Your task to perform on an android device: Clear the shopping cart on amazon.com. Add bose soundsport free to the cart on amazon.com, then select checkout. Image 0: 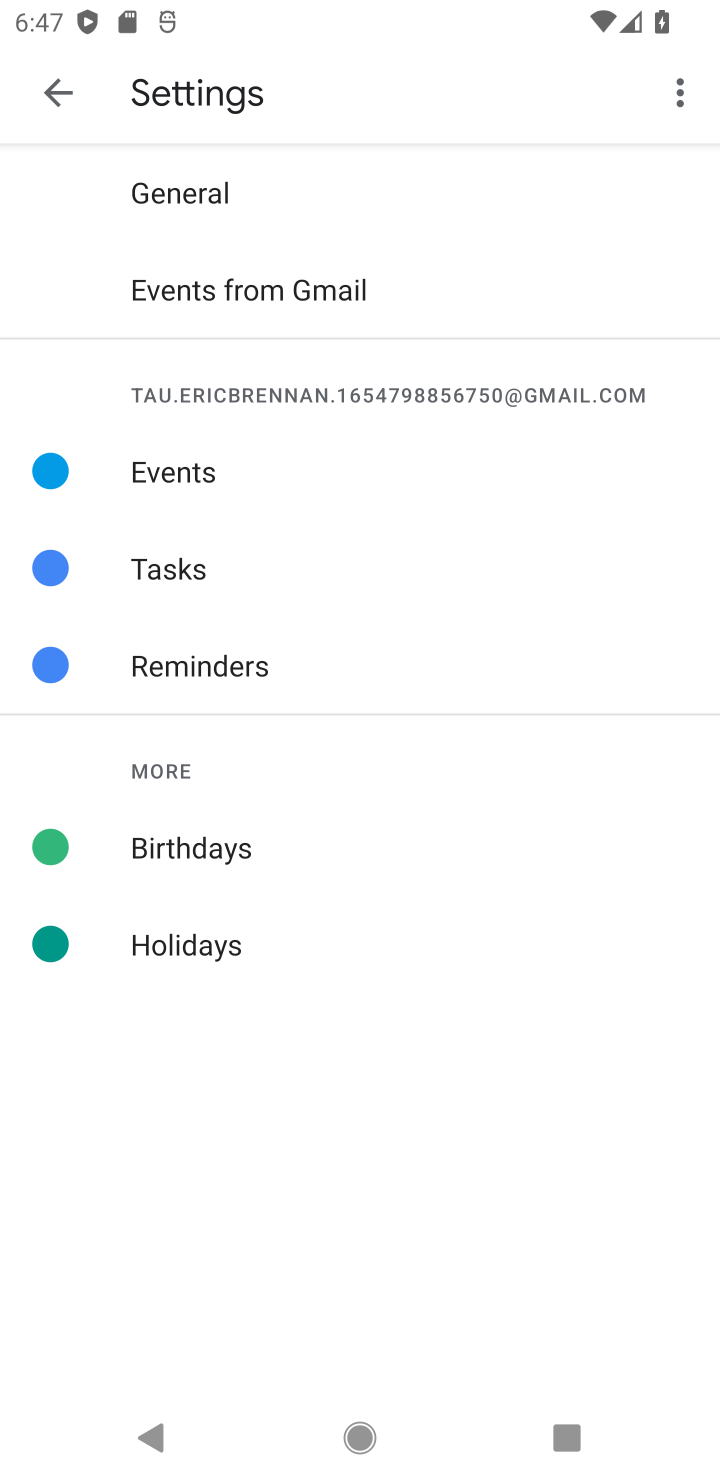
Step 0: press home button
Your task to perform on an android device: Clear the shopping cart on amazon.com. Add bose soundsport free to the cart on amazon.com, then select checkout. Image 1: 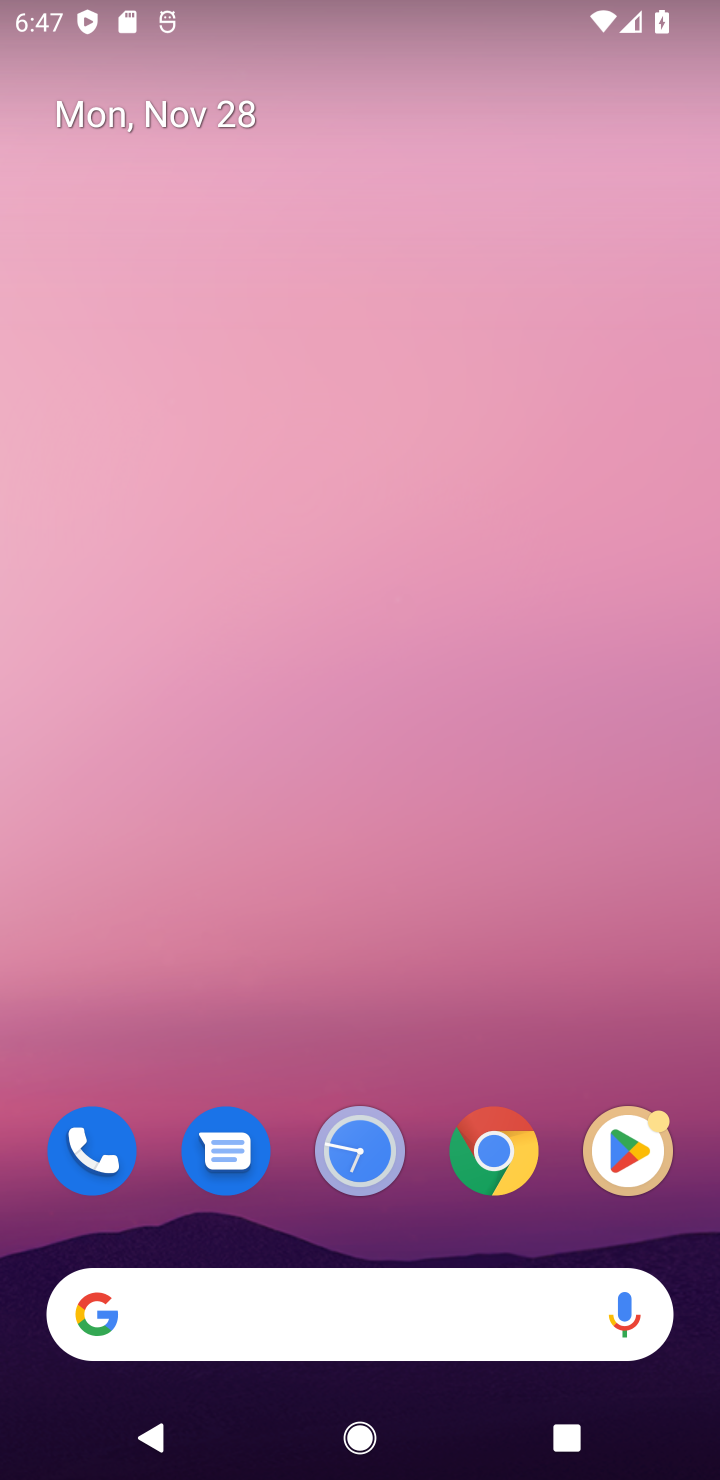
Step 1: click (329, 1295)
Your task to perform on an android device: Clear the shopping cart on amazon.com. Add bose soundsport free to the cart on amazon.com, then select checkout. Image 2: 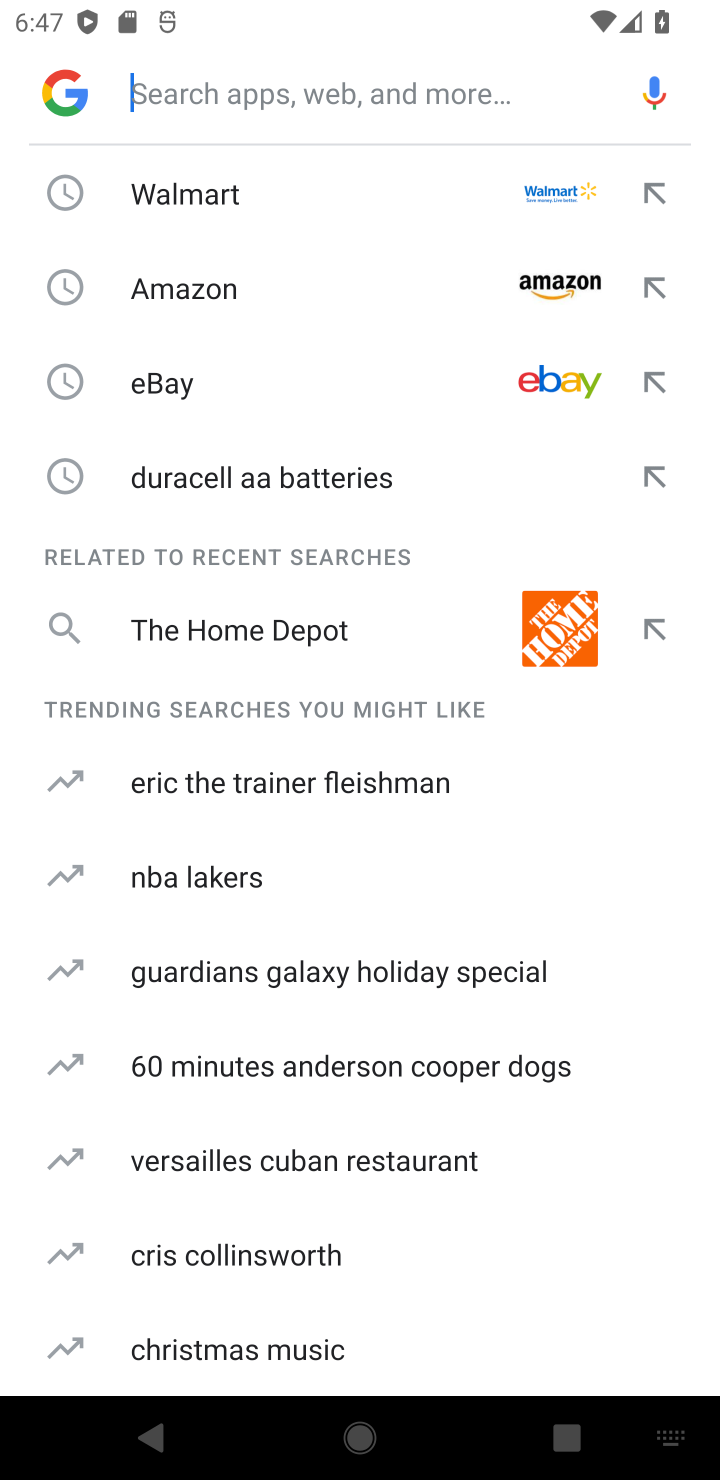
Step 2: type "amazon.com"
Your task to perform on an android device: Clear the shopping cart on amazon.com. Add bose soundsport free to the cart on amazon.com, then select checkout. Image 3: 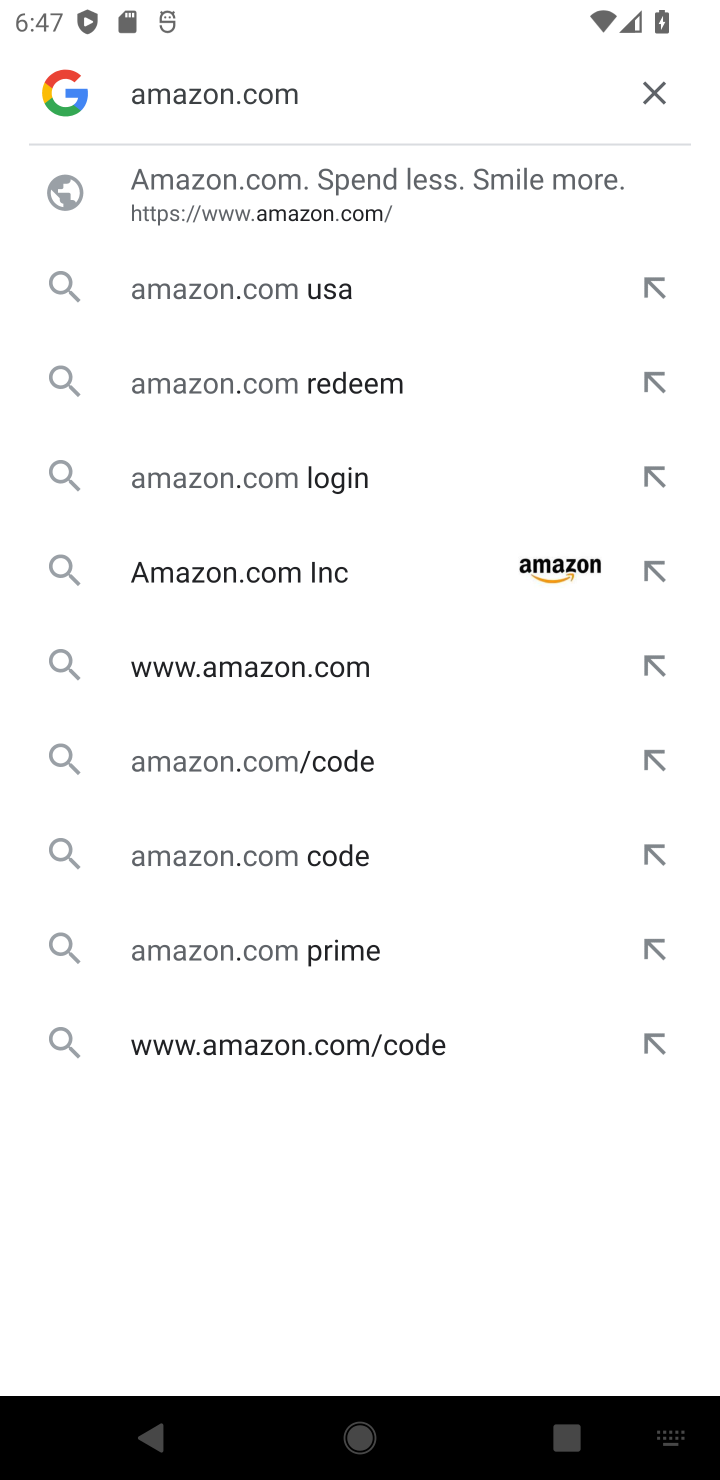
Step 3: click (301, 188)
Your task to perform on an android device: Clear the shopping cart on amazon.com. Add bose soundsport free to the cart on amazon.com, then select checkout. Image 4: 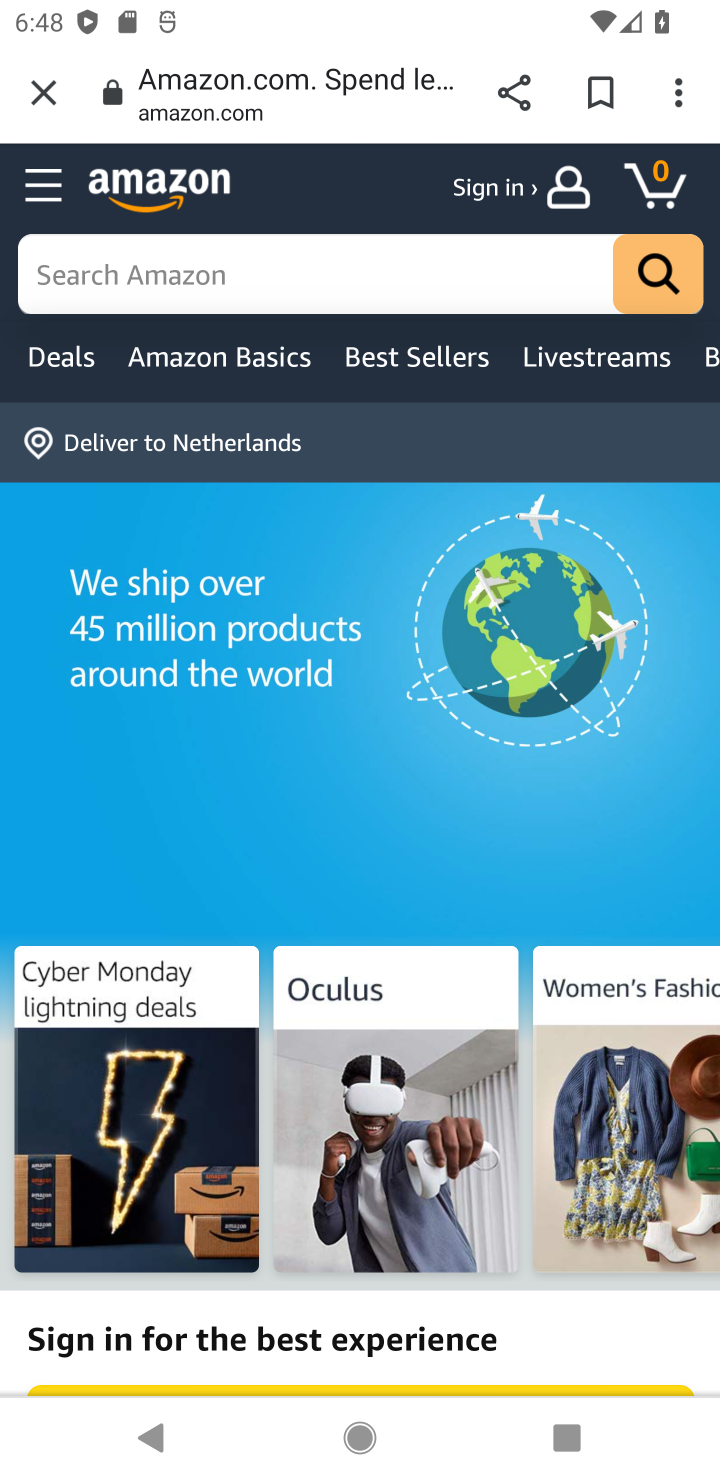
Step 4: click (280, 296)
Your task to perform on an android device: Clear the shopping cart on amazon.com. Add bose soundsport free to the cart on amazon.com, then select checkout. Image 5: 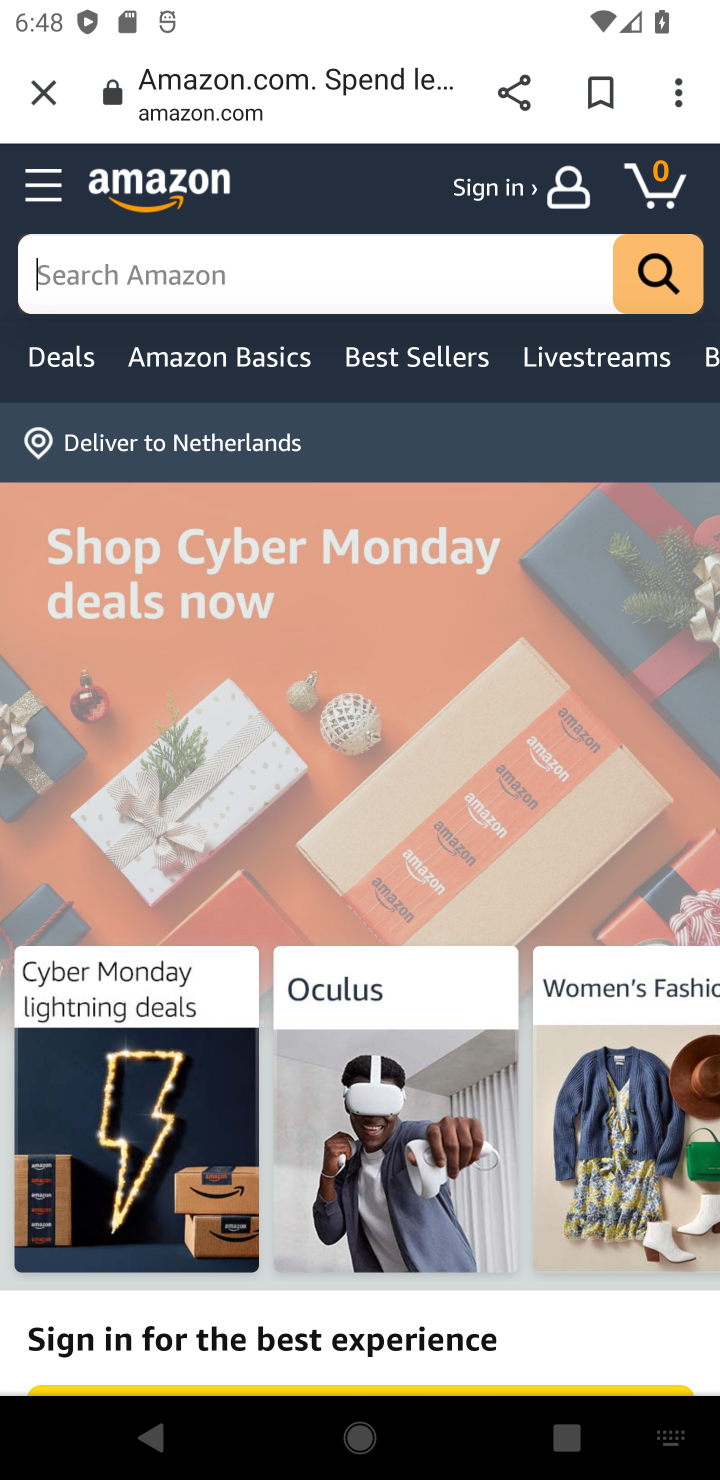
Step 5: type "bose soundsport"
Your task to perform on an android device: Clear the shopping cart on amazon.com. Add bose soundsport free to the cart on amazon.com, then select checkout. Image 6: 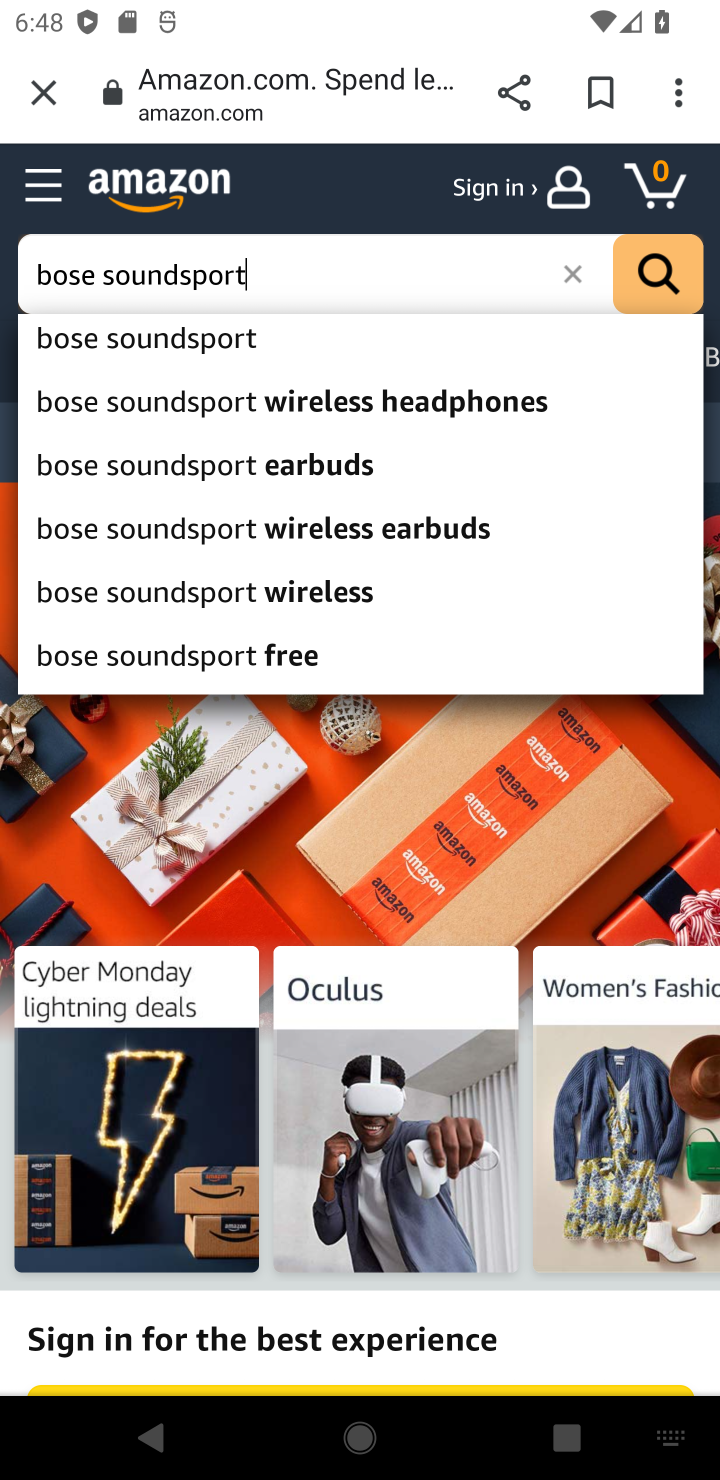
Step 6: click (51, 338)
Your task to perform on an android device: Clear the shopping cart on amazon.com. Add bose soundsport free to the cart on amazon.com, then select checkout. Image 7: 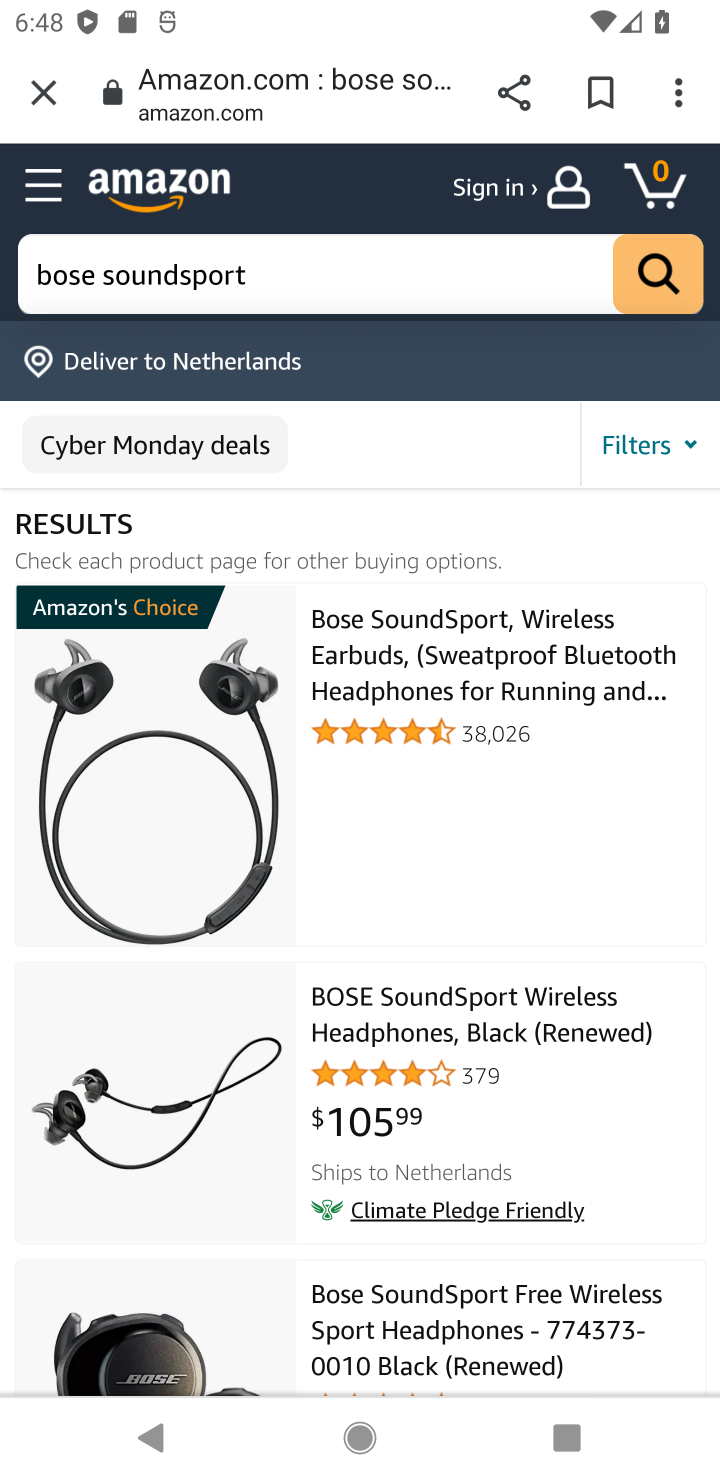
Step 7: click (354, 700)
Your task to perform on an android device: Clear the shopping cart on amazon.com. Add bose soundsport free to the cart on amazon.com, then select checkout. Image 8: 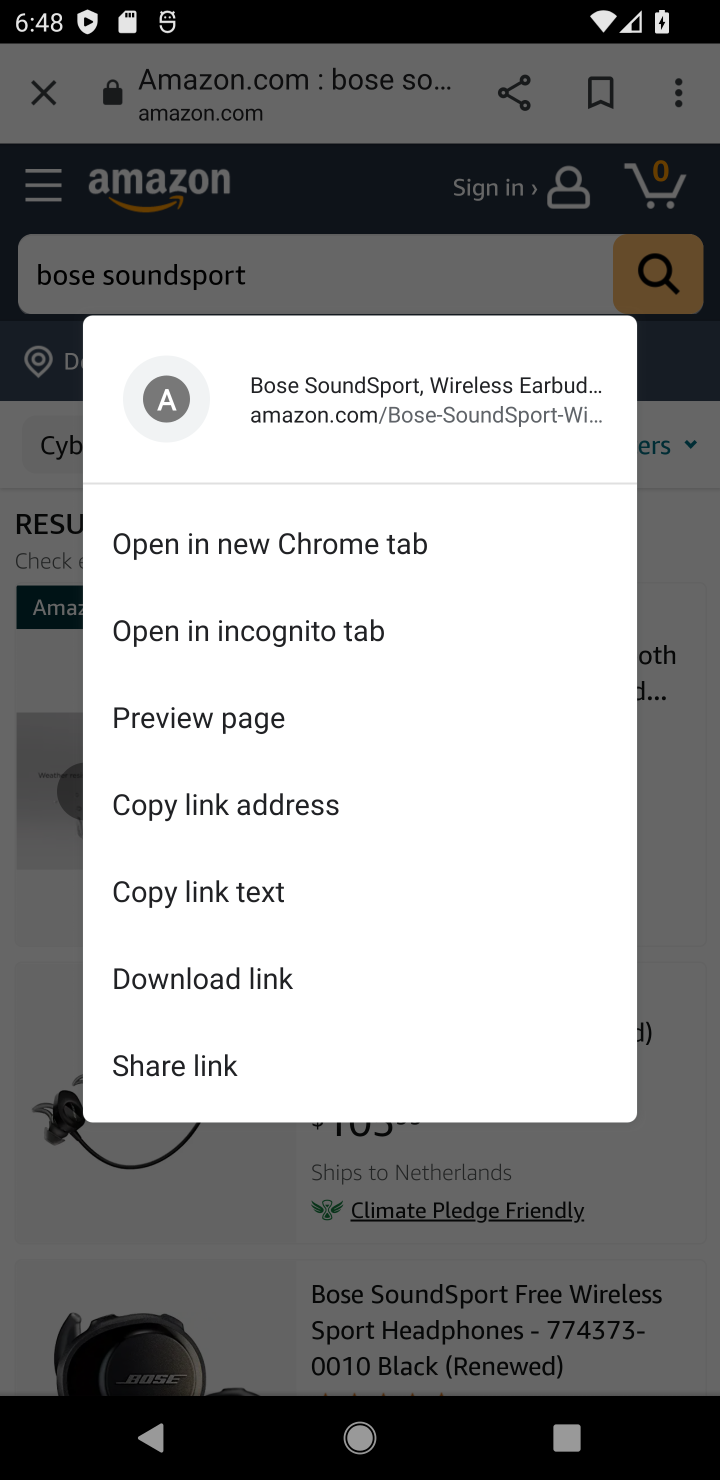
Step 8: click (531, 1175)
Your task to perform on an android device: Clear the shopping cart on amazon.com. Add bose soundsport free to the cart on amazon.com, then select checkout. Image 9: 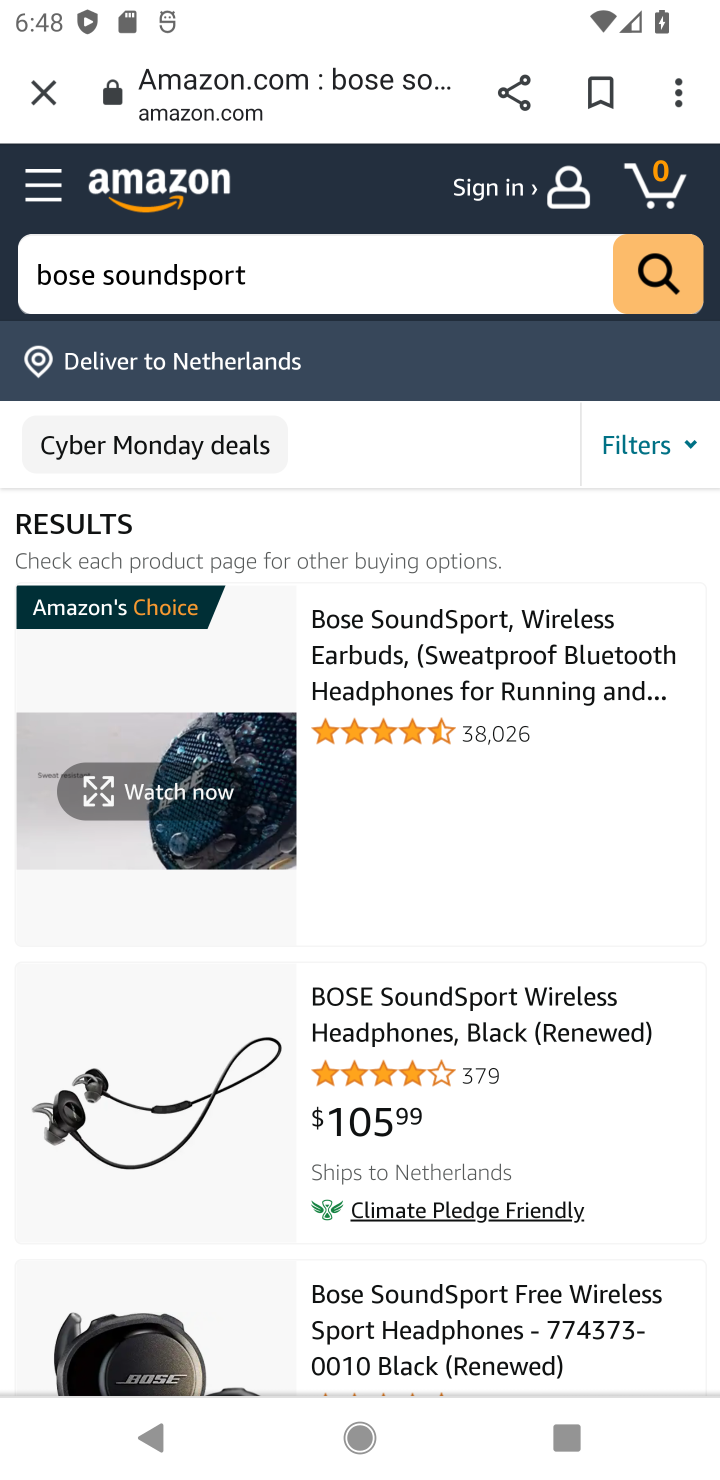
Step 9: click (442, 693)
Your task to perform on an android device: Clear the shopping cart on amazon.com. Add bose soundsport free to the cart on amazon.com, then select checkout. Image 10: 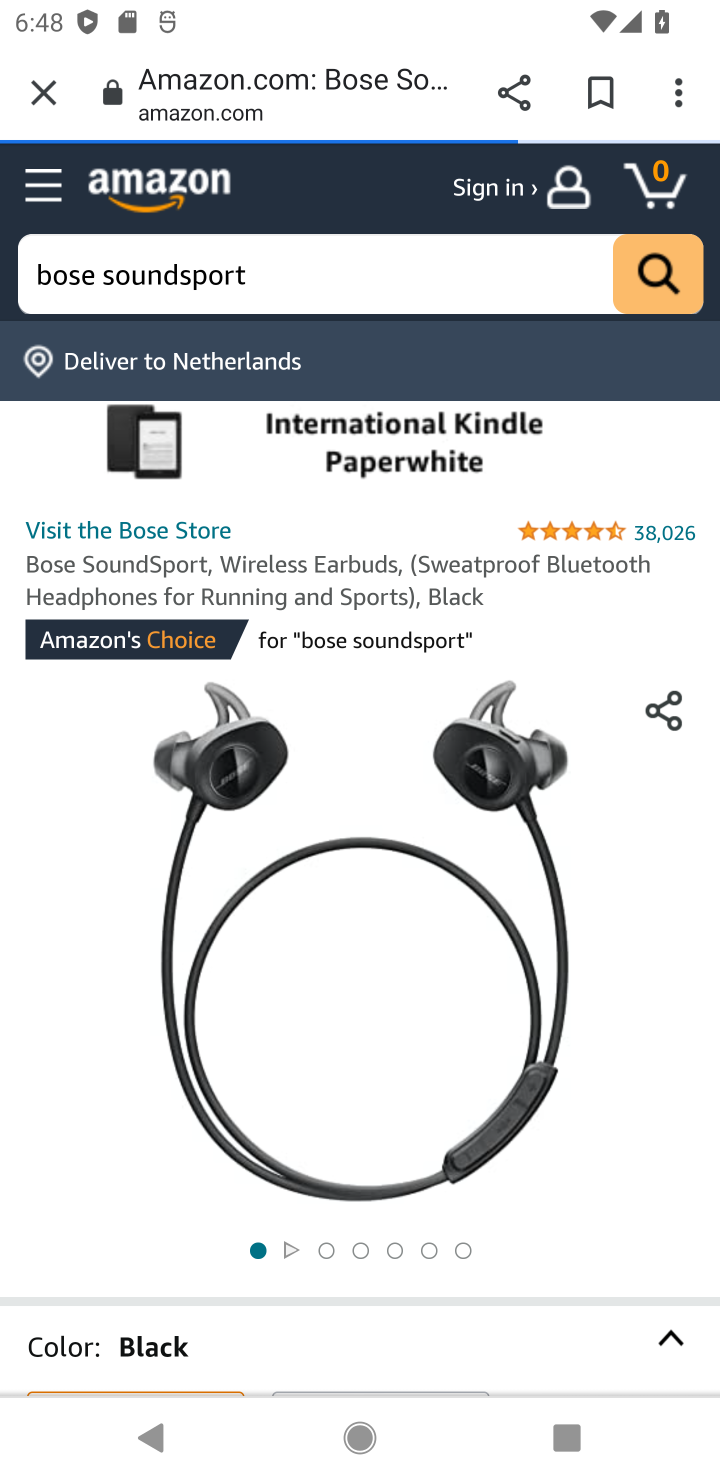
Step 10: task complete